Your task to perform on an android device: turn off picture-in-picture Image 0: 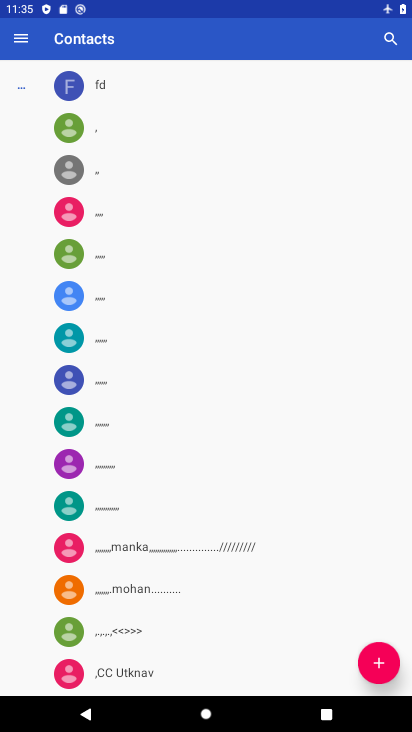
Step 0: press home button
Your task to perform on an android device: turn off picture-in-picture Image 1: 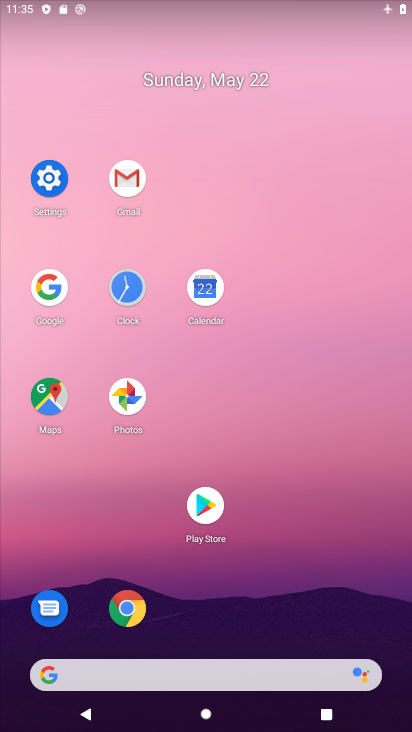
Step 1: click (137, 605)
Your task to perform on an android device: turn off picture-in-picture Image 2: 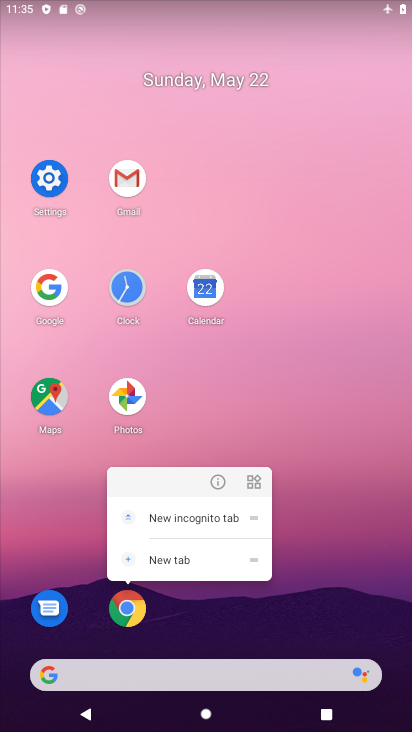
Step 2: click (209, 479)
Your task to perform on an android device: turn off picture-in-picture Image 3: 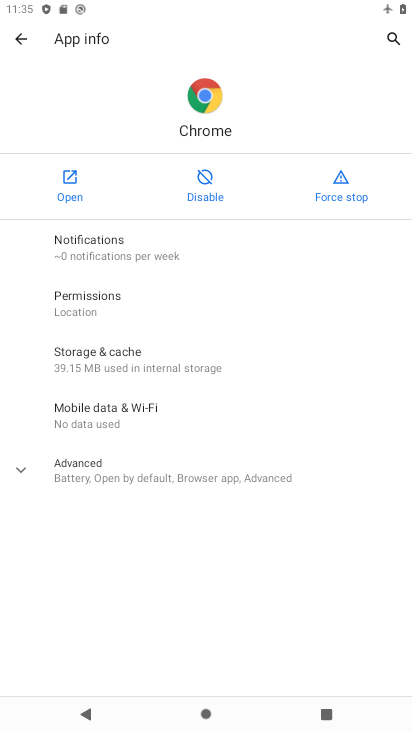
Step 3: click (169, 465)
Your task to perform on an android device: turn off picture-in-picture Image 4: 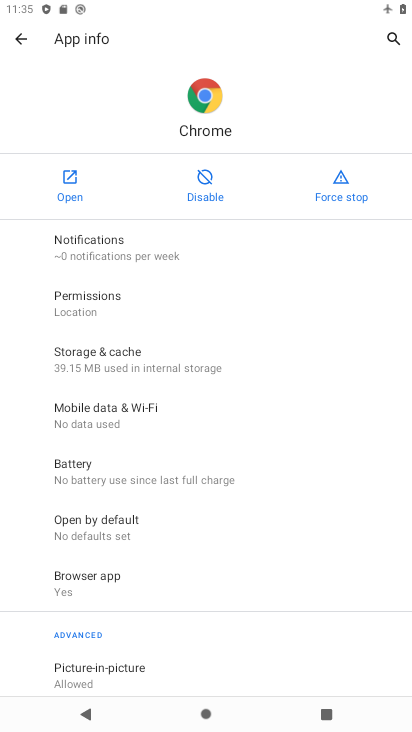
Step 4: click (158, 662)
Your task to perform on an android device: turn off picture-in-picture Image 5: 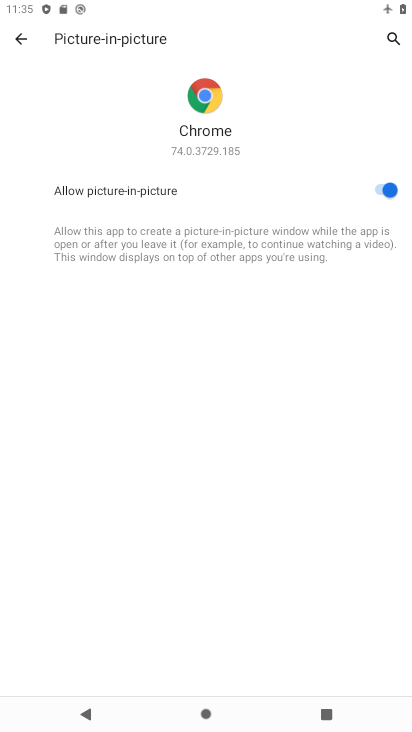
Step 5: click (392, 181)
Your task to perform on an android device: turn off picture-in-picture Image 6: 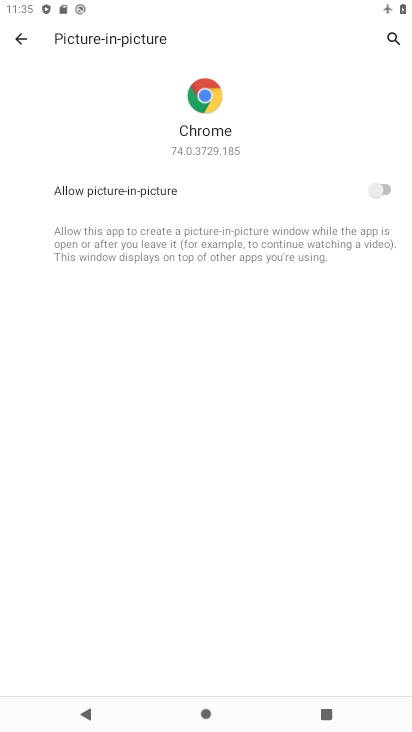
Step 6: task complete